Your task to perform on an android device: star an email in the gmail app Image 0: 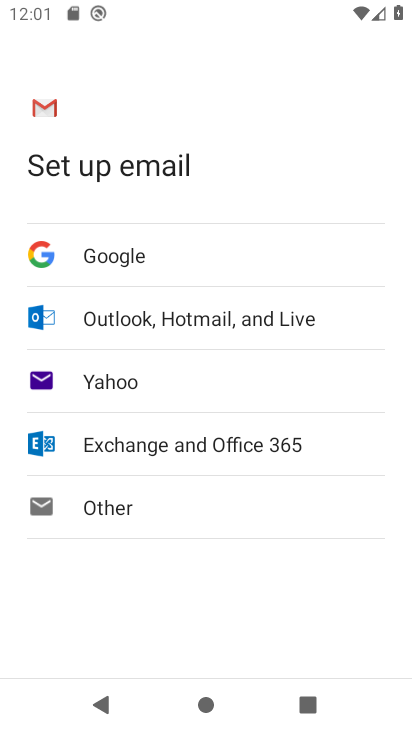
Step 0: press home button
Your task to perform on an android device: star an email in the gmail app Image 1: 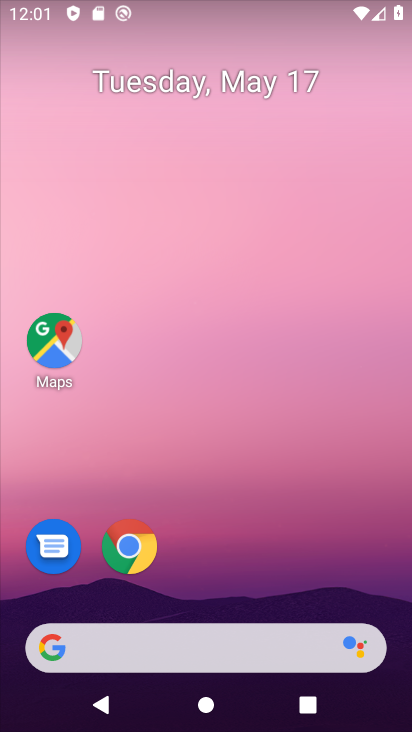
Step 1: drag from (199, 597) to (223, 194)
Your task to perform on an android device: star an email in the gmail app Image 2: 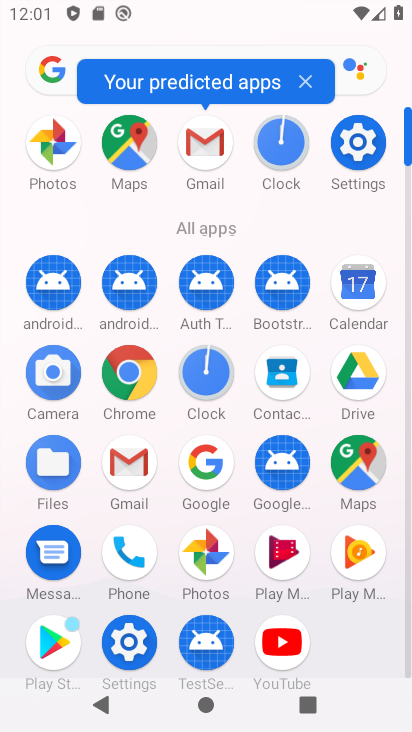
Step 2: click (204, 142)
Your task to perform on an android device: star an email in the gmail app Image 3: 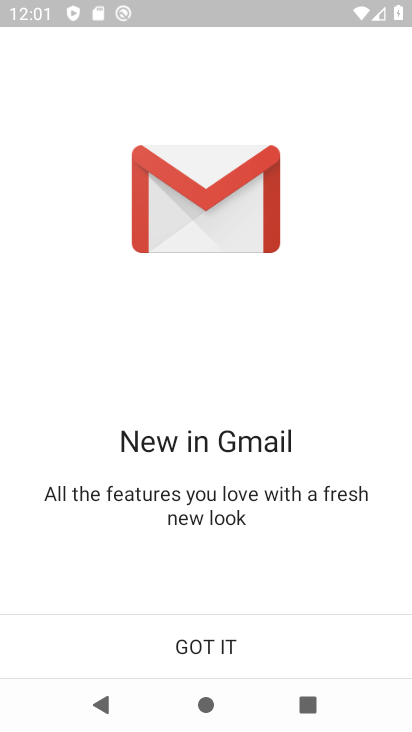
Step 3: click (208, 656)
Your task to perform on an android device: star an email in the gmail app Image 4: 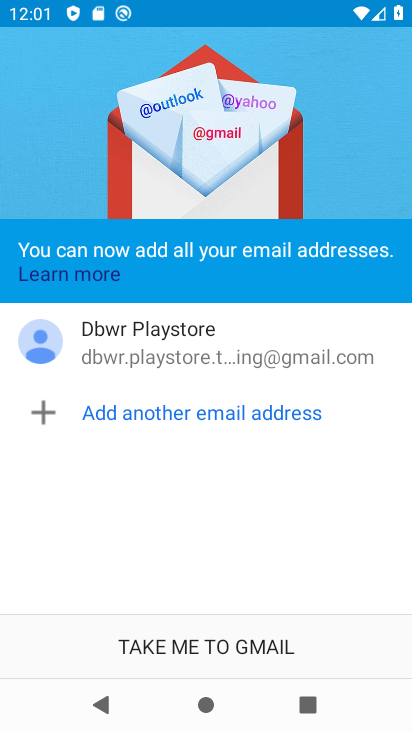
Step 4: click (209, 655)
Your task to perform on an android device: star an email in the gmail app Image 5: 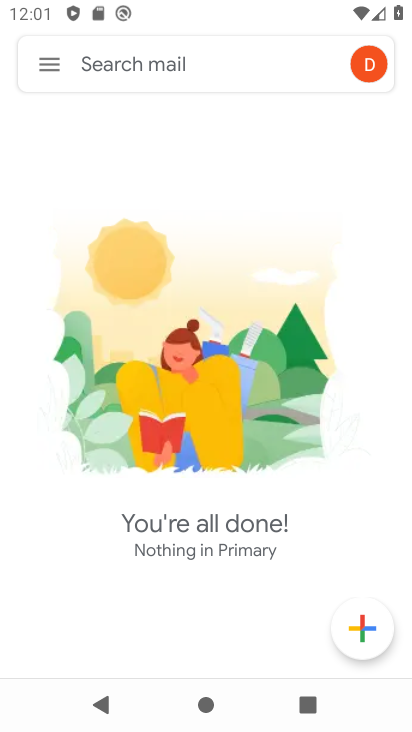
Step 5: click (44, 69)
Your task to perform on an android device: star an email in the gmail app Image 6: 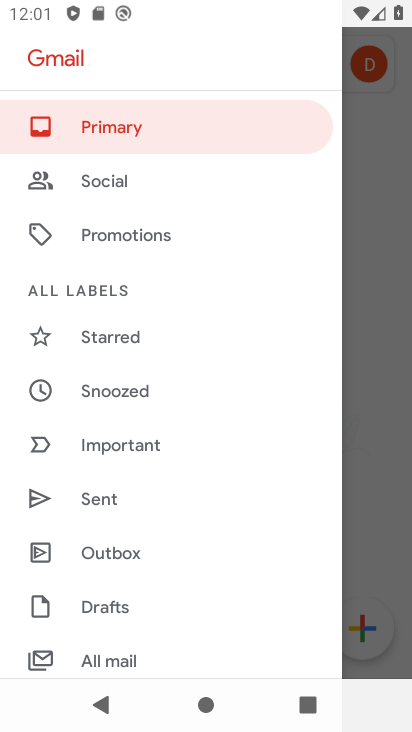
Step 6: click (146, 655)
Your task to perform on an android device: star an email in the gmail app Image 7: 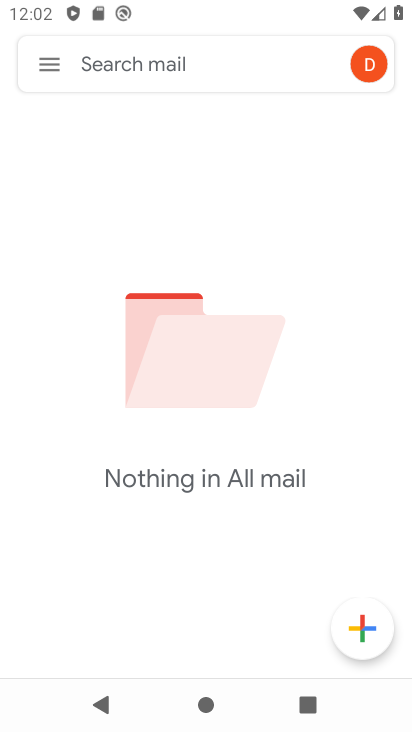
Step 7: task complete